Your task to perform on an android device: snooze an email in the gmail app Image 0: 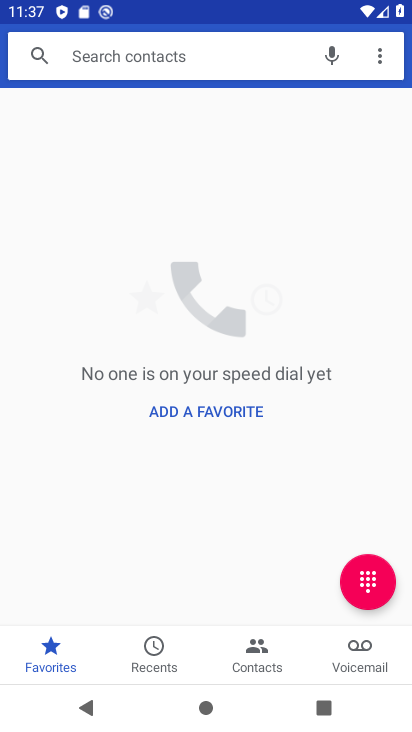
Step 0: press home button
Your task to perform on an android device: snooze an email in the gmail app Image 1: 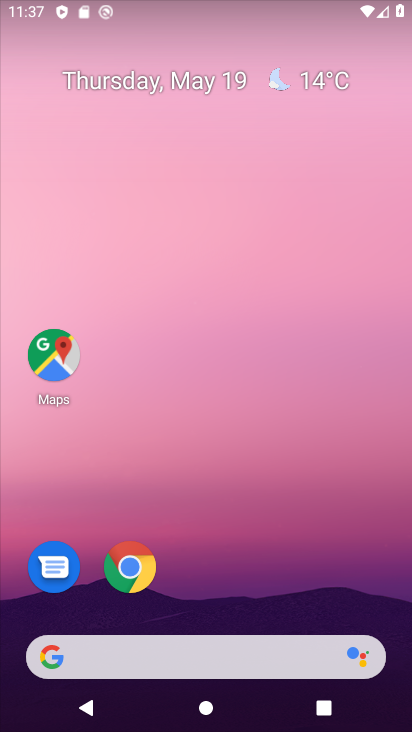
Step 1: drag from (262, 558) to (295, 111)
Your task to perform on an android device: snooze an email in the gmail app Image 2: 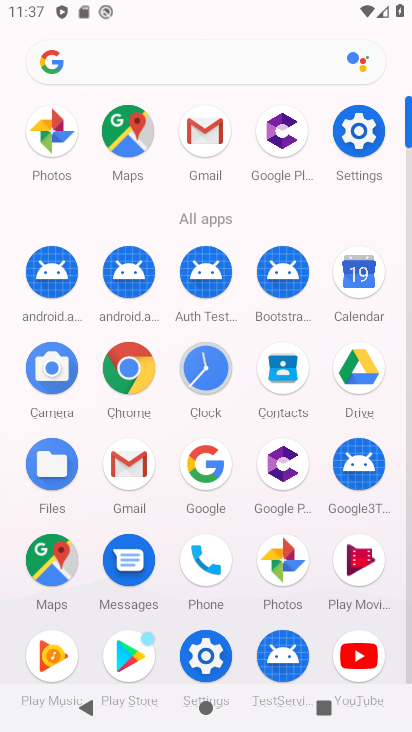
Step 2: click (189, 129)
Your task to perform on an android device: snooze an email in the gmail app Image 3: 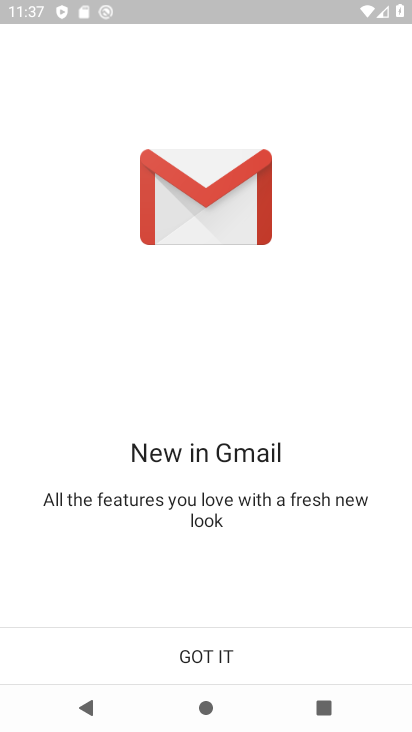
Step 3: click (236, 656)
Your task to perform on an android device: snooze an email in the gmail app Image 4: 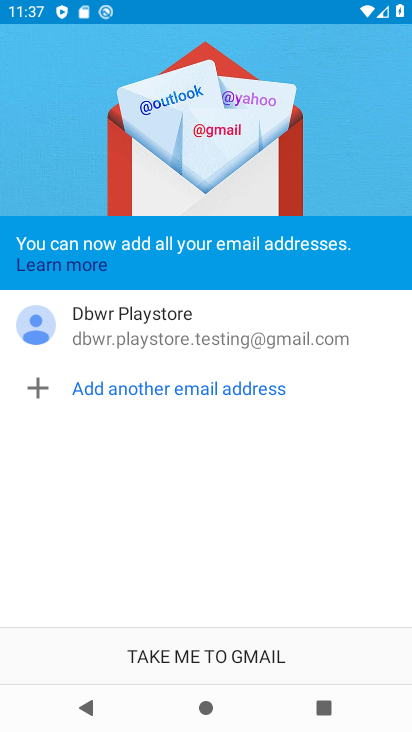
Step 4: click (236, 655)
Your task to perform on an android device: snooze an email in the gmail app Image 5: 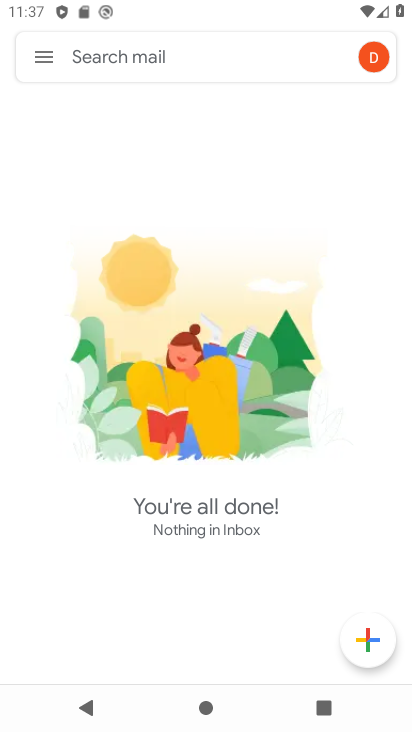
Step 5: task complete